Your task to perform on an android device: Open the web browser Image 0: 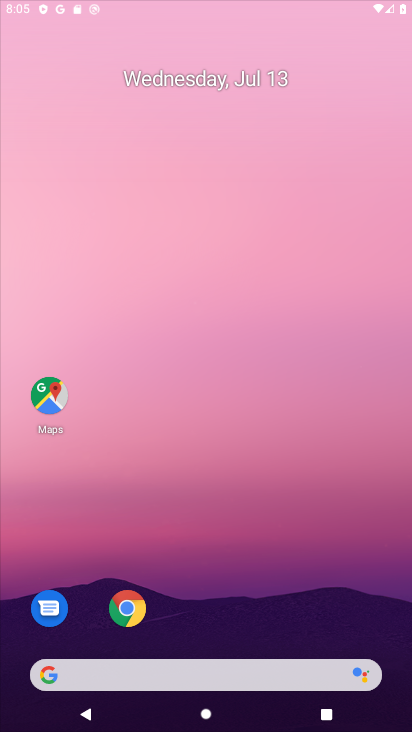
Step 0: drag from (213, 4) to (281, 7)
Your task to perform on an android device: Open the web browser Image 1: 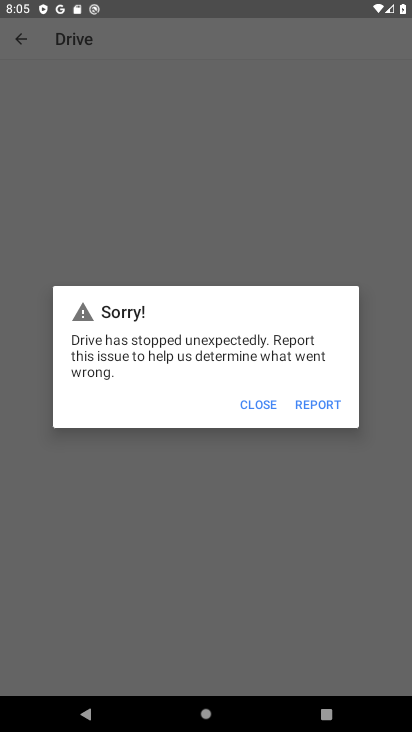
Step 1: click (256, 410)
Your task to perform on an android device: Open the web browser Image 2: 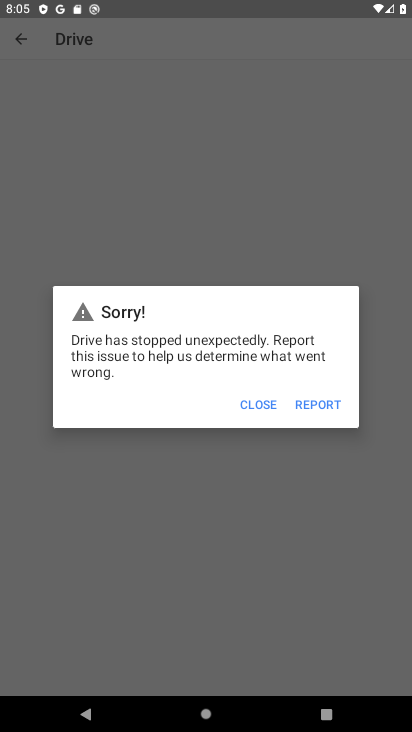
Step 2: click (255, 409)
Your task to perform on an android device: Open the web browser Image 3: 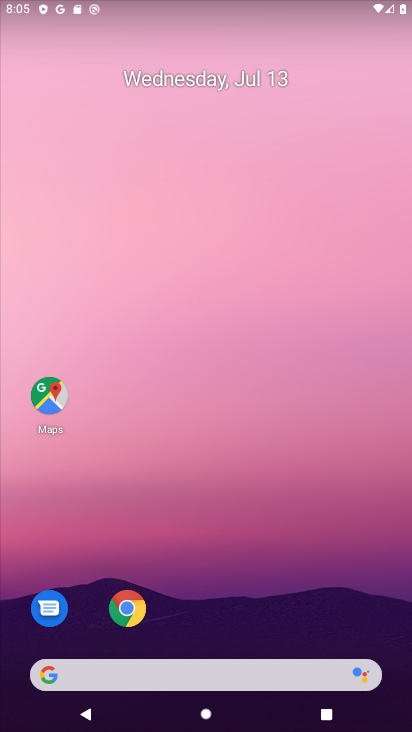
Step 3: drag from (253, 647) to (188, 111)
Your task to perform on an android device: Open the web browser Image 4: 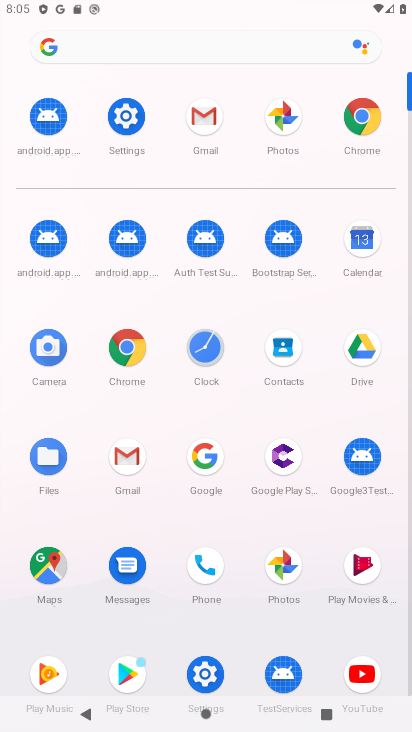
Step 4: click (364, 119)
Your task to perform on an android device: Open the web browser Image 5: 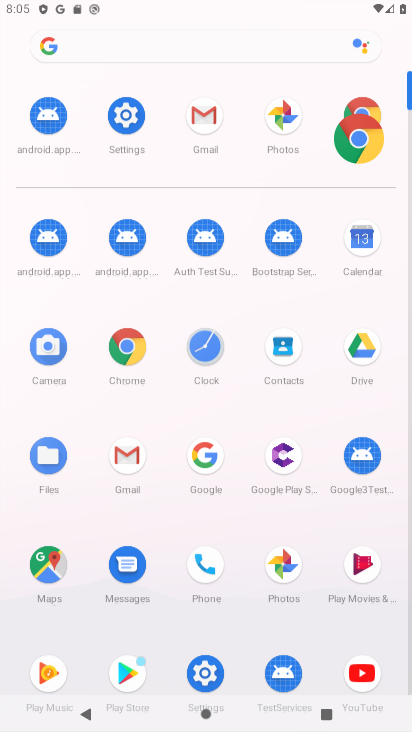
Step 5: click (364, 119)
Your task to perform on an android device: Open the web browser Image 6: 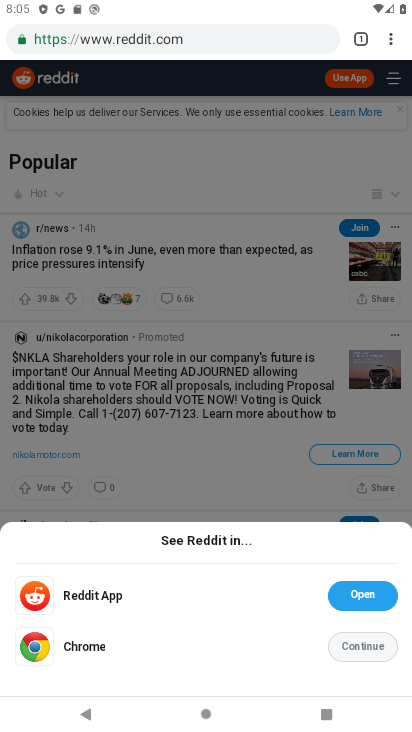
Step 6: click (192, 166)
Your task to perform on an android device: Open the web browser Image 7: 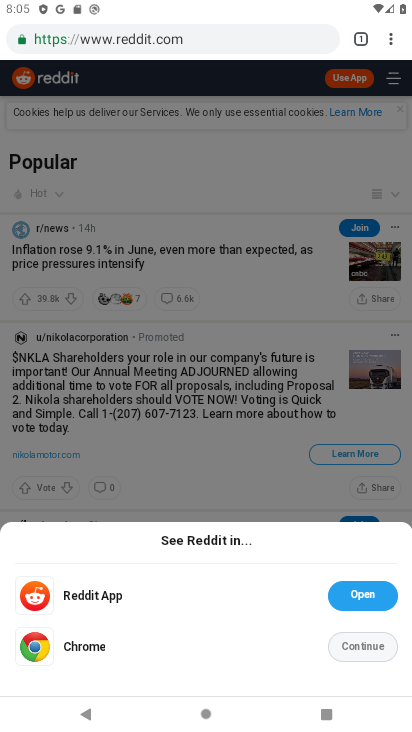
Step 7: drag from (390, 34) to (242, 78)
Your task to perform on an android device: Open the web browser Image 8: 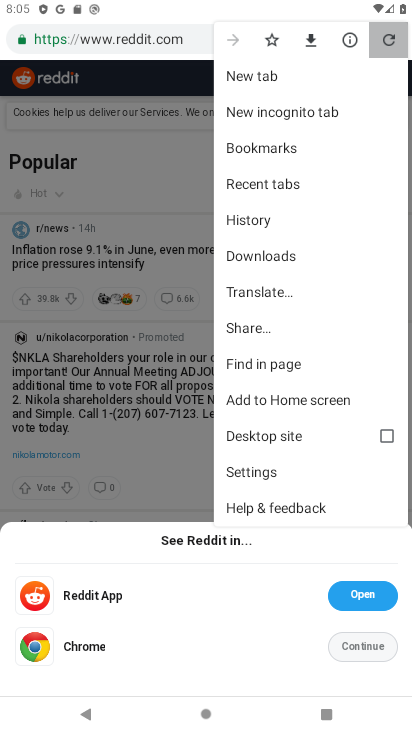
Step 8: click (240, 70)
Your task to perform on an android device: Open the web browser Image 9: 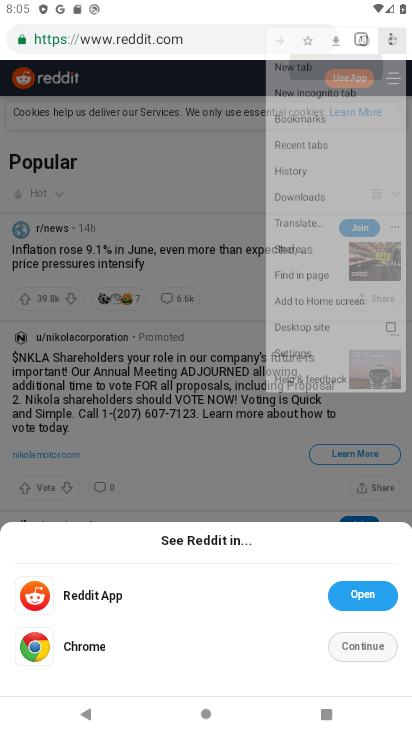
Step 9: click (239, 69)
Your task to perform on an android device: Open the web browser Image 10: 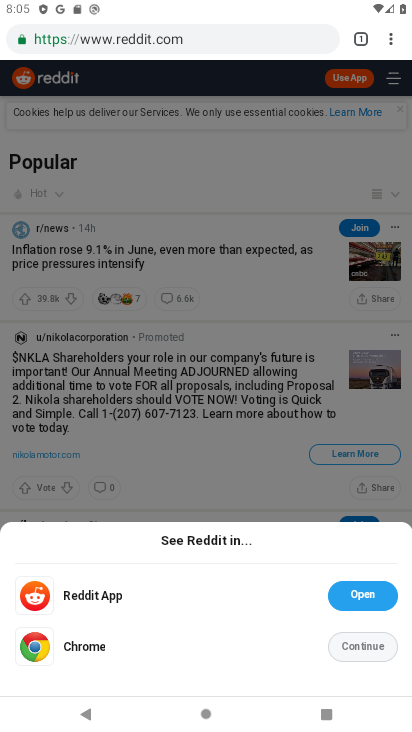
Step 10: click (239, 69)
Your task to perform on an android device: Open the web browser Image 11: 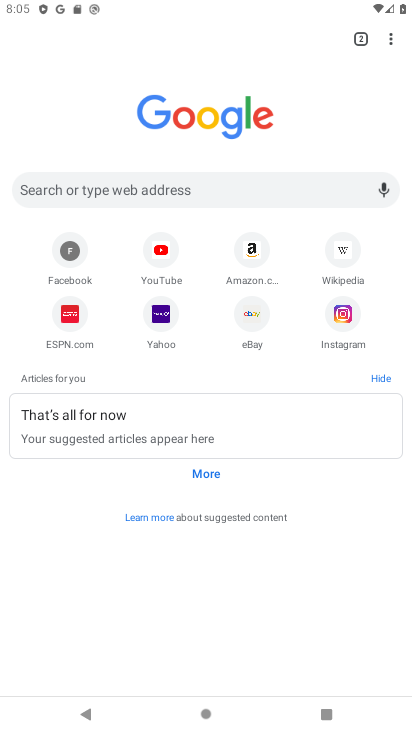
Step 11: task complete